Your task to perform on an android device: check android version Image 0: 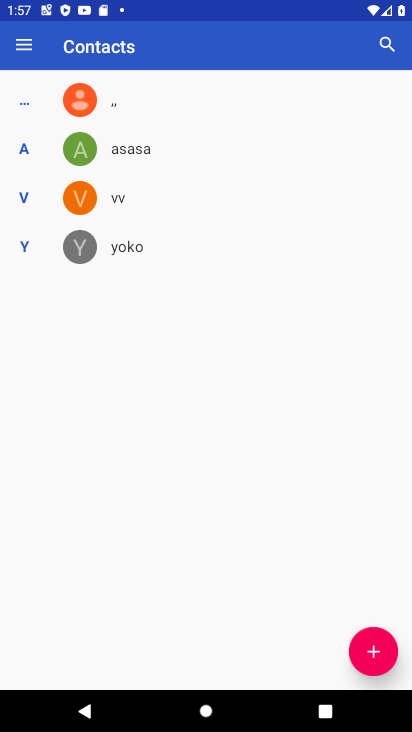
Step 0: press home button
Your task to perform on an android device: check android version Image 1: 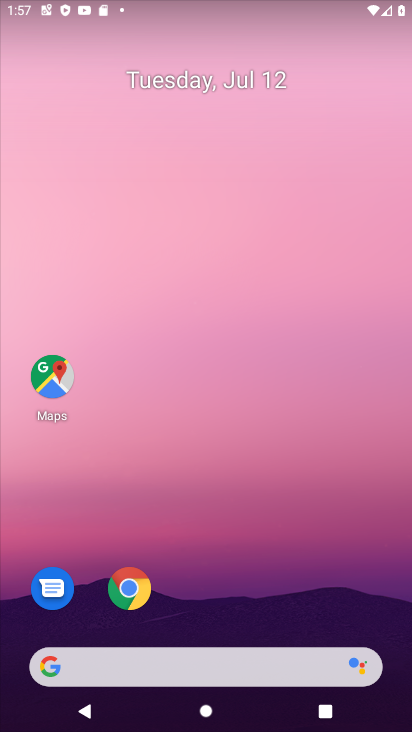
Step 1: drag from (194, 656) to (185, 116)
Your task to perform on an android device: check android version Image 2: 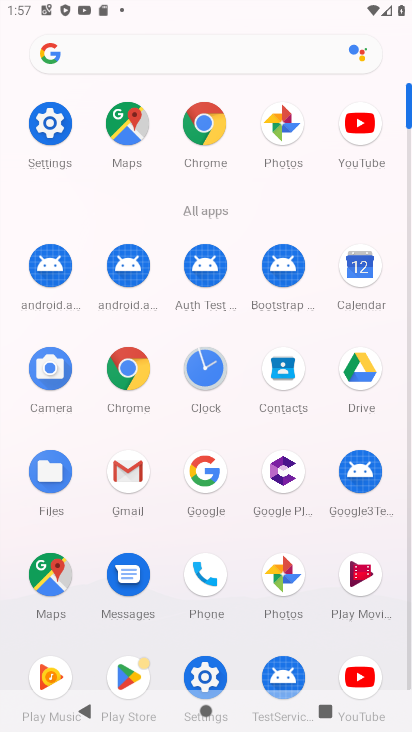
Step 2: click (43, 126)
Your task to perform on an android device: check android version Image 3: 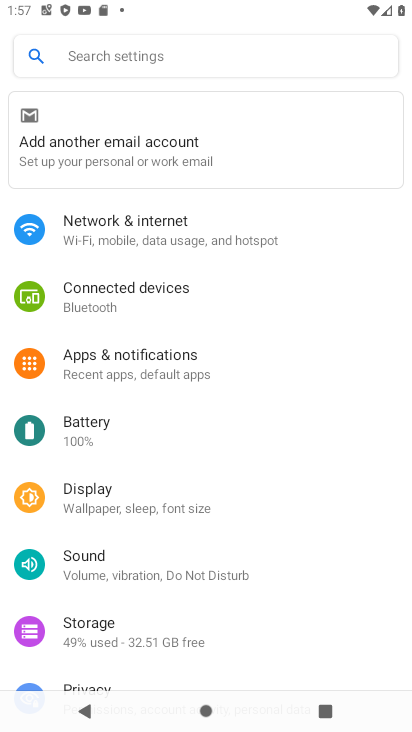
Step 3: drag from (89, 574) to (84, 36)
Your task to perform on an android device: check android version Image 4: 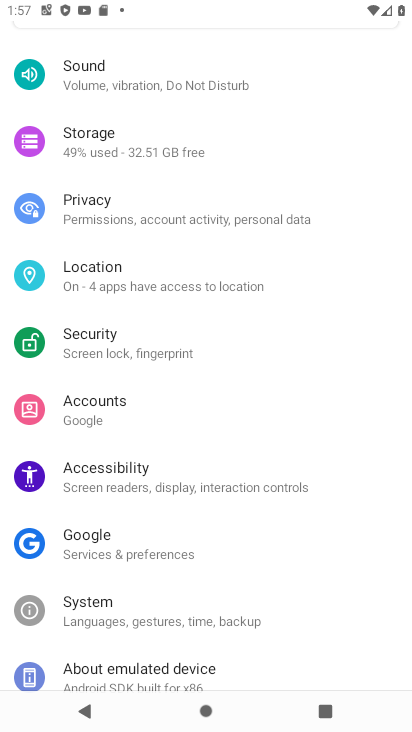
Step 4: click (180, 670)
Your task to perform on an android device: check android version Image 5: 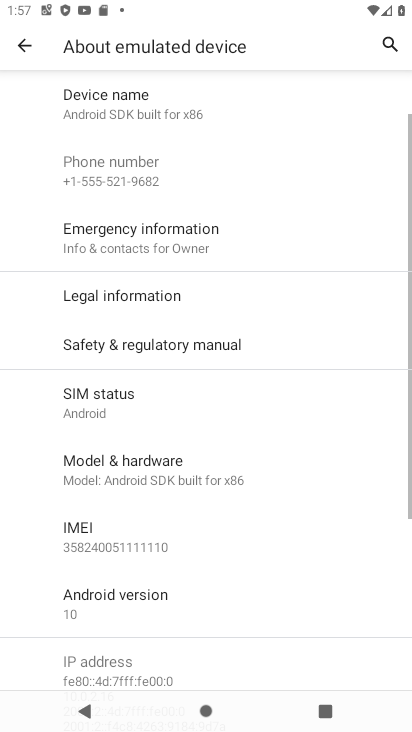
Step 5: click (193, 595)
Your task to perform on an android device: check android version Image 6: 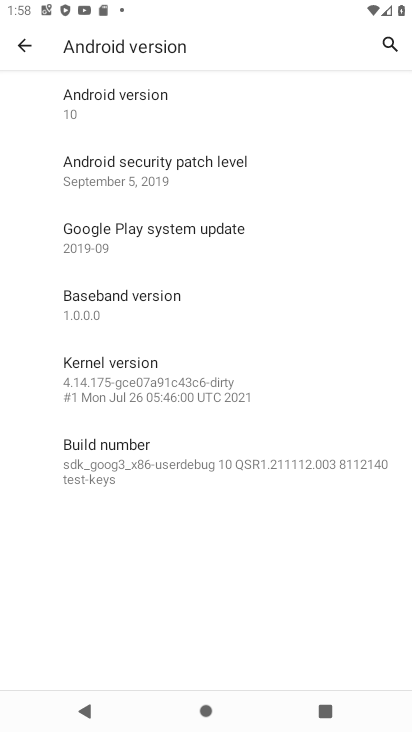
Step 6: task complete